Your task to perform on an android device: Check the news Image 0: 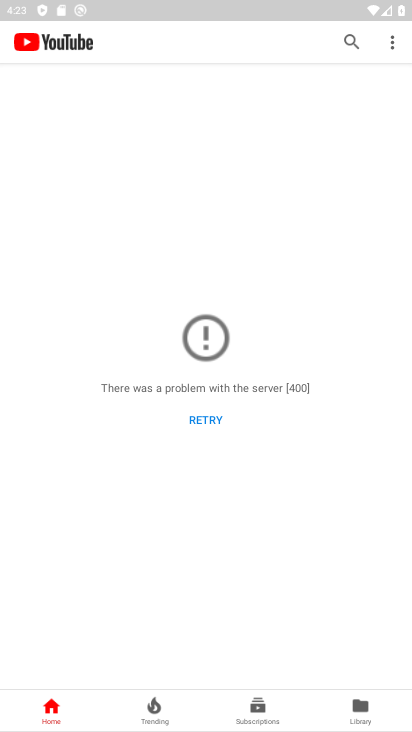
Step 0: press home button
Your task to perform on an android device: Check the news Image 1: 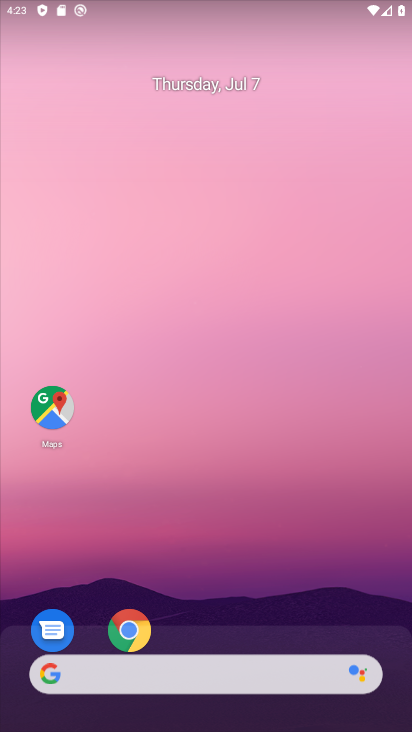
Step 1: click (132, 632)
Your task to perform on an android device: Check the news Image 2: 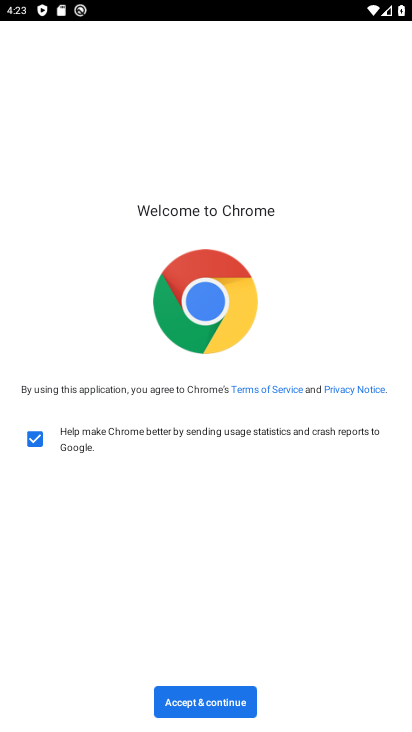
Step 2: click (227, 686)
Your task to perform on an android device: Check the news Image 3: 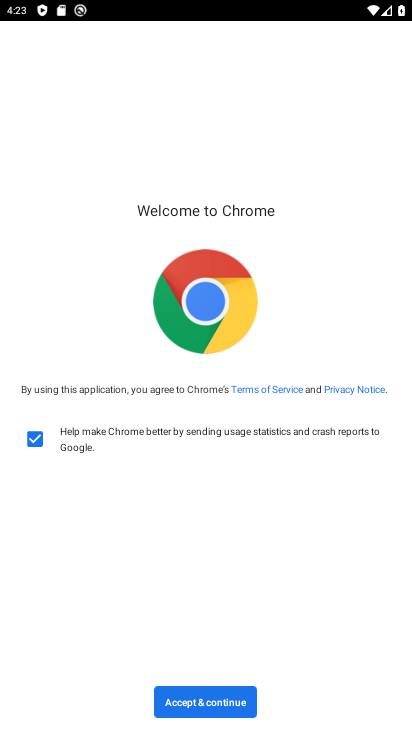
Step 3: click (231, 711)
Your task to perform on an android device: Check the news Image 4: 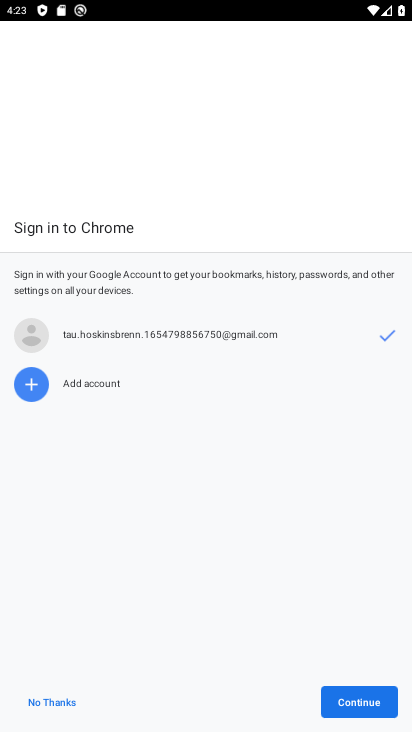
Step 4: click (338, 695)
Your task to perform on an android device: Check the news Image 5: 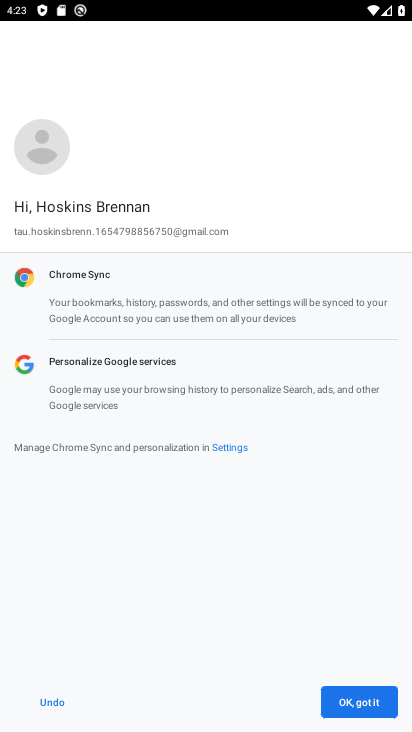
Step 5: click (351, 698)
Your task to perform on an android device: Check the news Image 6: 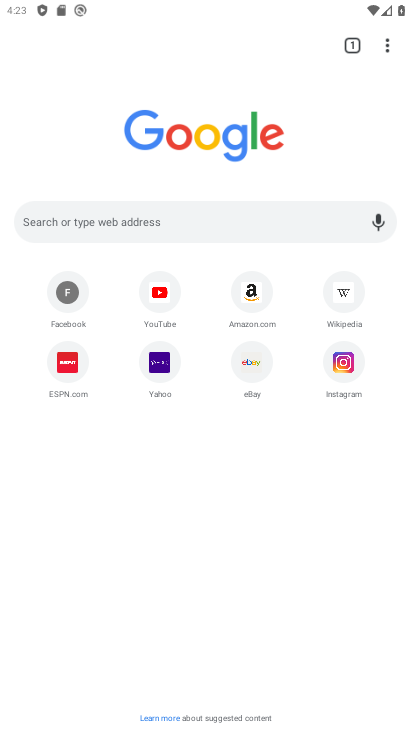
Step 6: click (133, 40)
Your task to perform on an android device: Check the news Image 7: 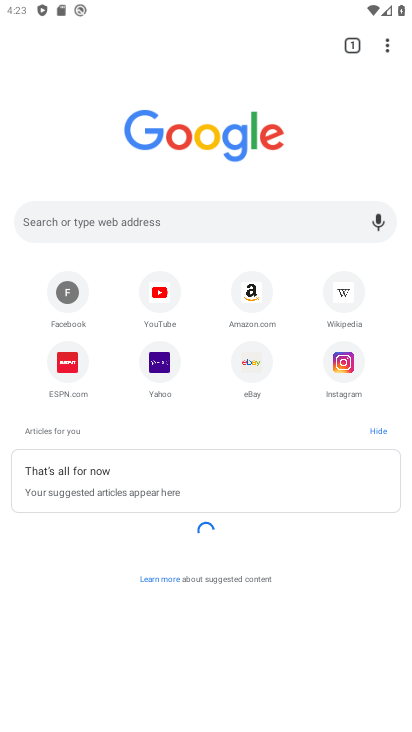
Step 7: click (183, 218)
Your task to perform on an android device: Check the news Image 8: 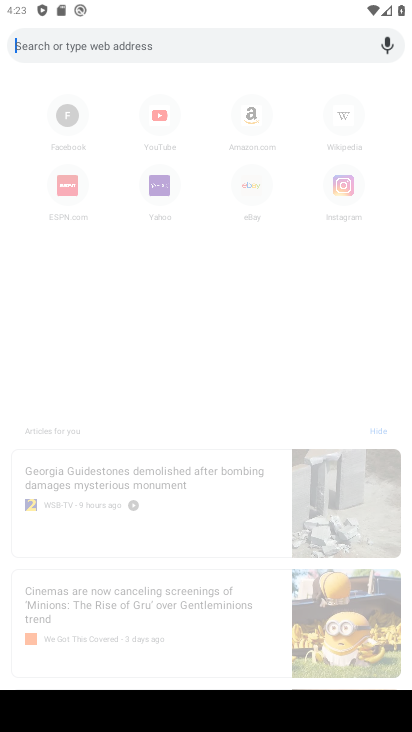
Step 8: type "news"
Your task to perform on an android device: Check the news Image 9: 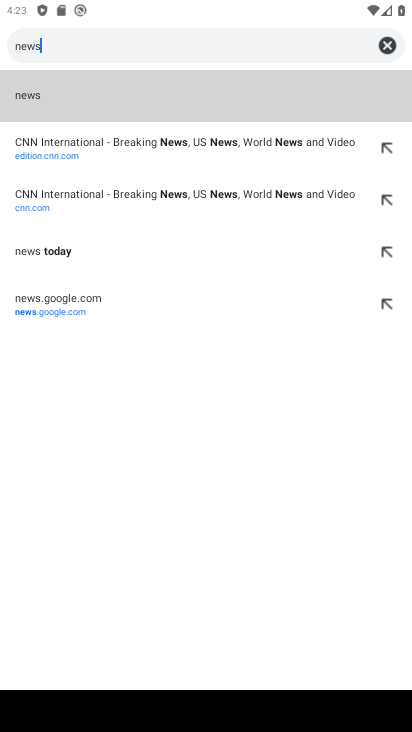
Step 9: click (49, 107)
Your task to perform on an android device: Check the news Image 10: 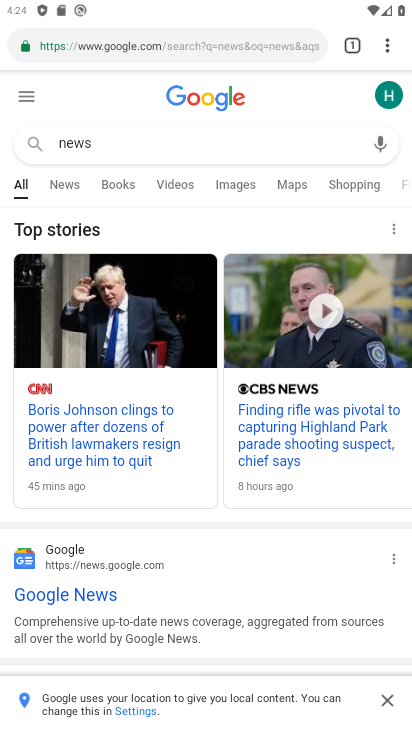
Step 10: task complete